Your task to perform on an android device: open a bookmark in the chrome app Image 0: 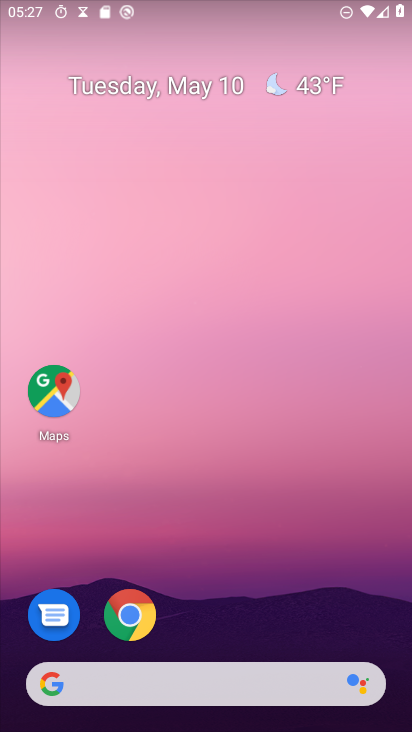
Step 0: drag from (279, 676) to (267, 112)
Your task to perform on an android device: open a bookmark in the chrome app Image 1: 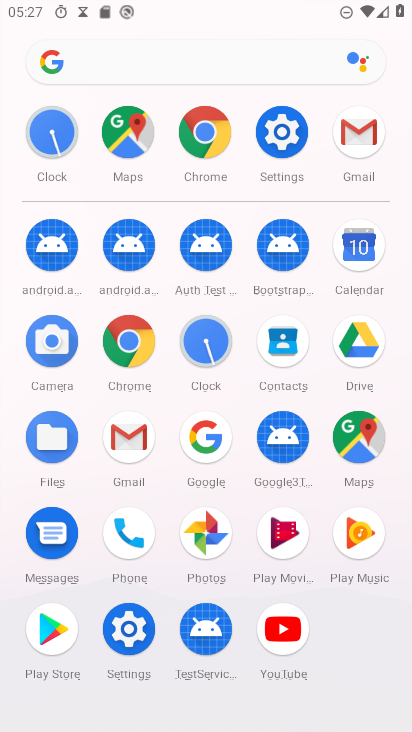
Step 1: click (124, 337)
Your task to perform on an android device: open a bookmark in the chrome app Image 2: 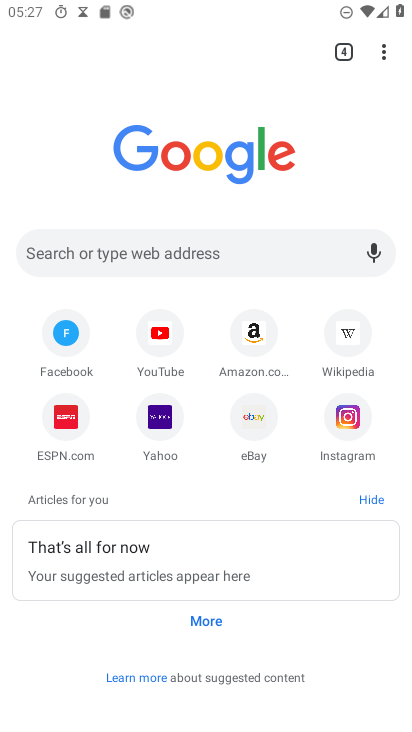
Step 2: click (380, 58)
Your task to perform on an android device: open a bookmark in the chrome app Image 3: 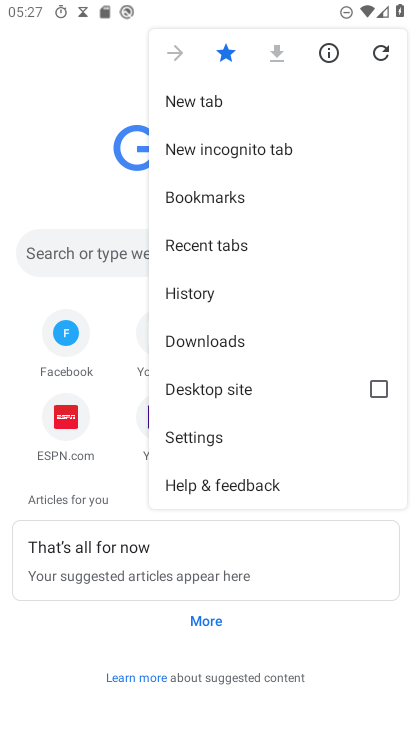
Step 3: click (246, 201)
Your task to perform on an android device: open a bookmark in the chrome app Image 4: 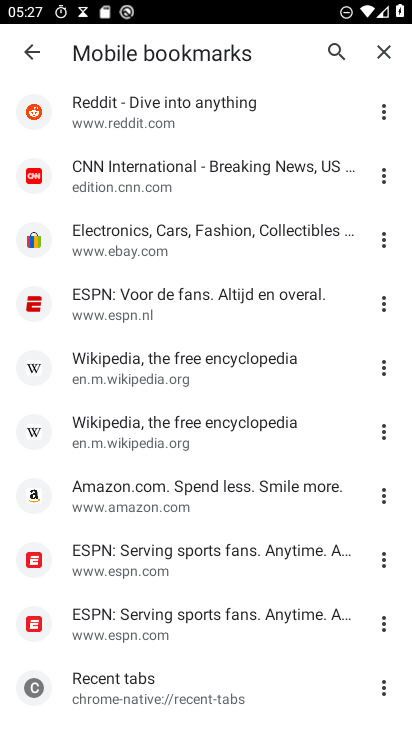
Step 4: task complete